Your task to perform on an android device: empty trash in the gmail app Image 0: 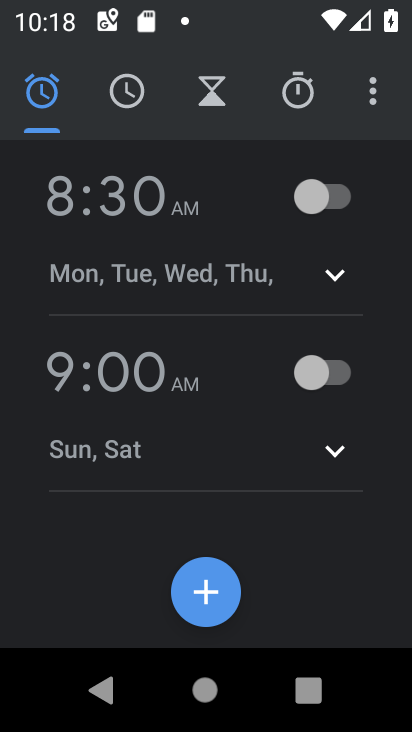
Step 0: press home button
Your task to perform on an android device: empty trash in the gmail app Image 1: 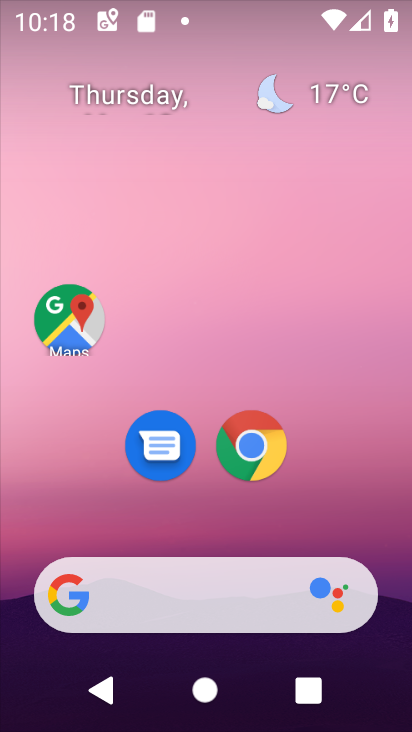
Step 1: drag from (236, 534) to (193, 102)
Your task to perform on an android device: empty trash in the gmail app Image 2: 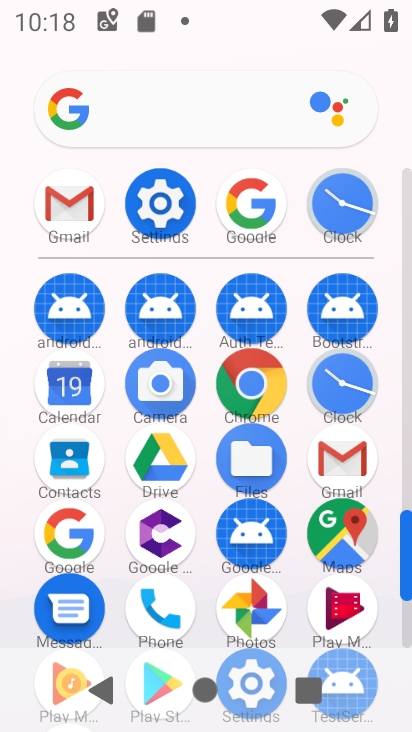
Step 2: click (317, 470)
Your task to perform on an android device: empty trash in the gmail app Image 3: 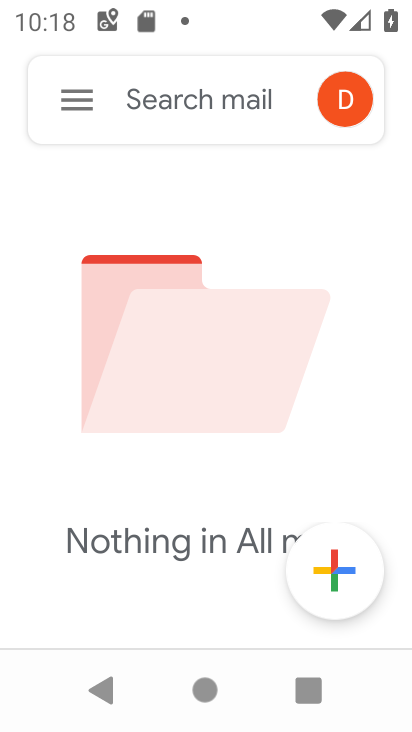
Step 3: click (65, 113)
Your task to perform on an android device: empty trash in the gmail app Image 4: 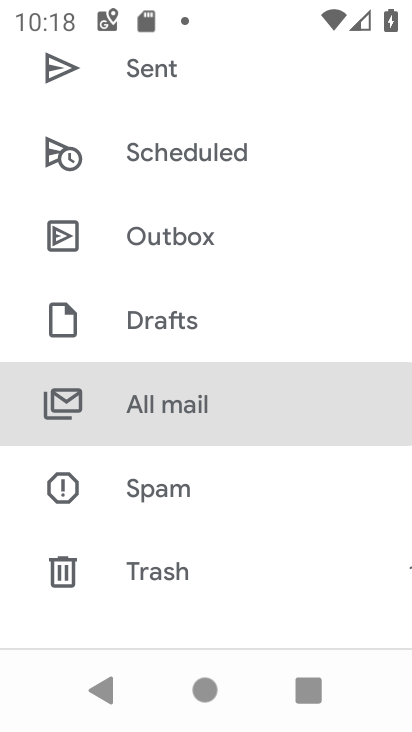
Step 4: drag from (131, 573) to (182, 388)
Your task to perform on an android device: empty trash in the gmail app Image 5: 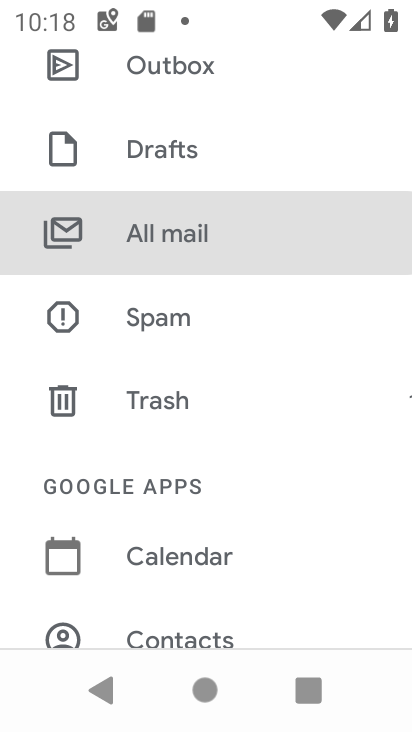
Step 5: click (154, 412)
Your task to perform on an android device: empty trash in the gmail app Image 6: 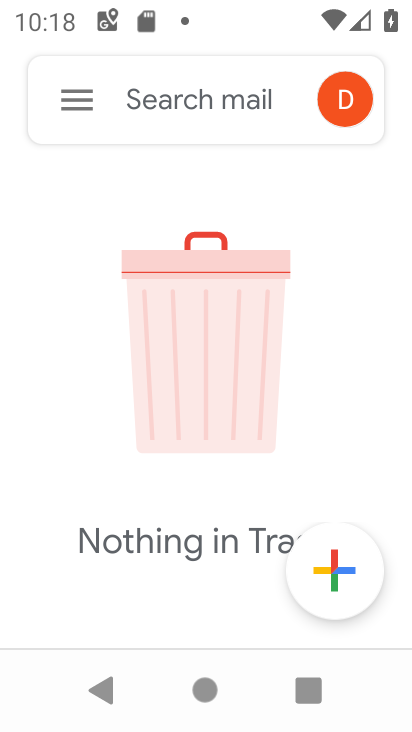
Step 6: task complete